Your task to perform on an android device: check out phone information Image 0: 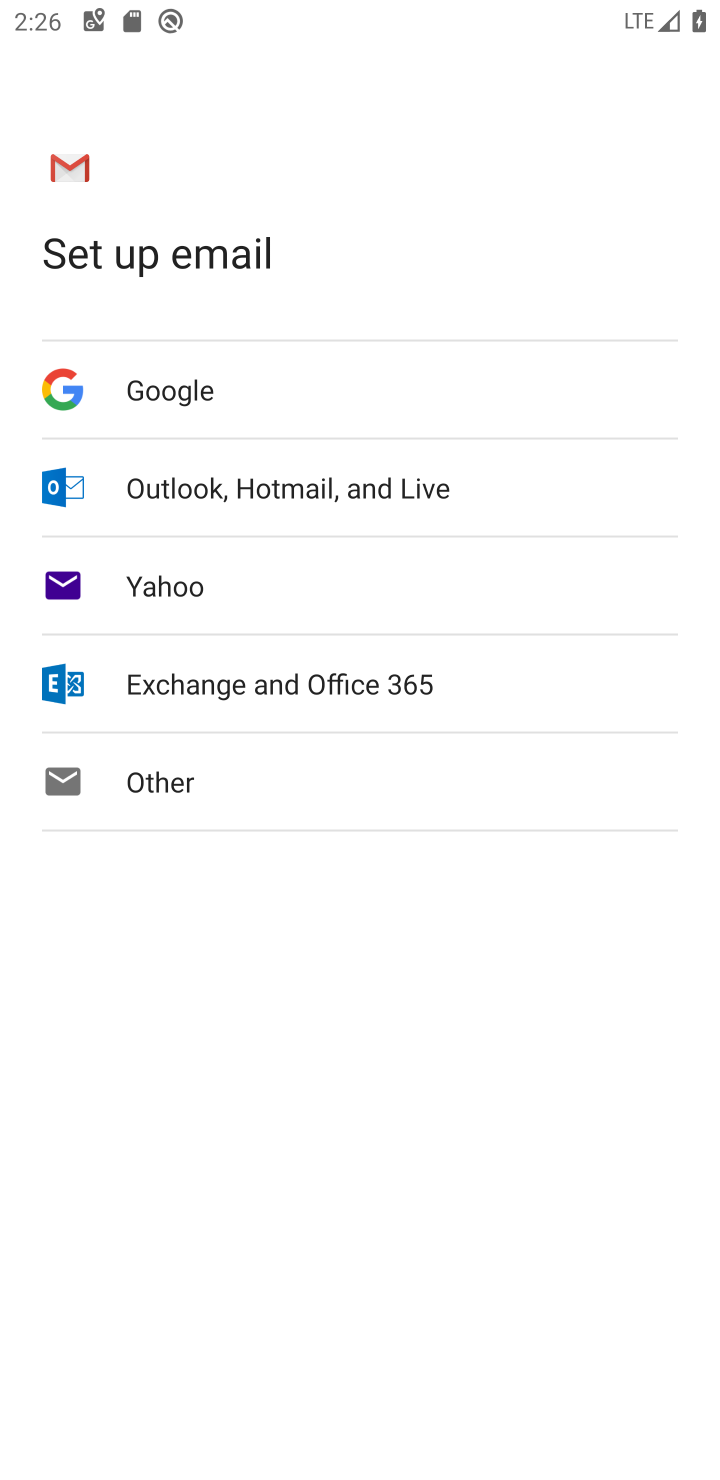
Step 0: press home button
Your task to perform on an android device: check out phone information Image 1: 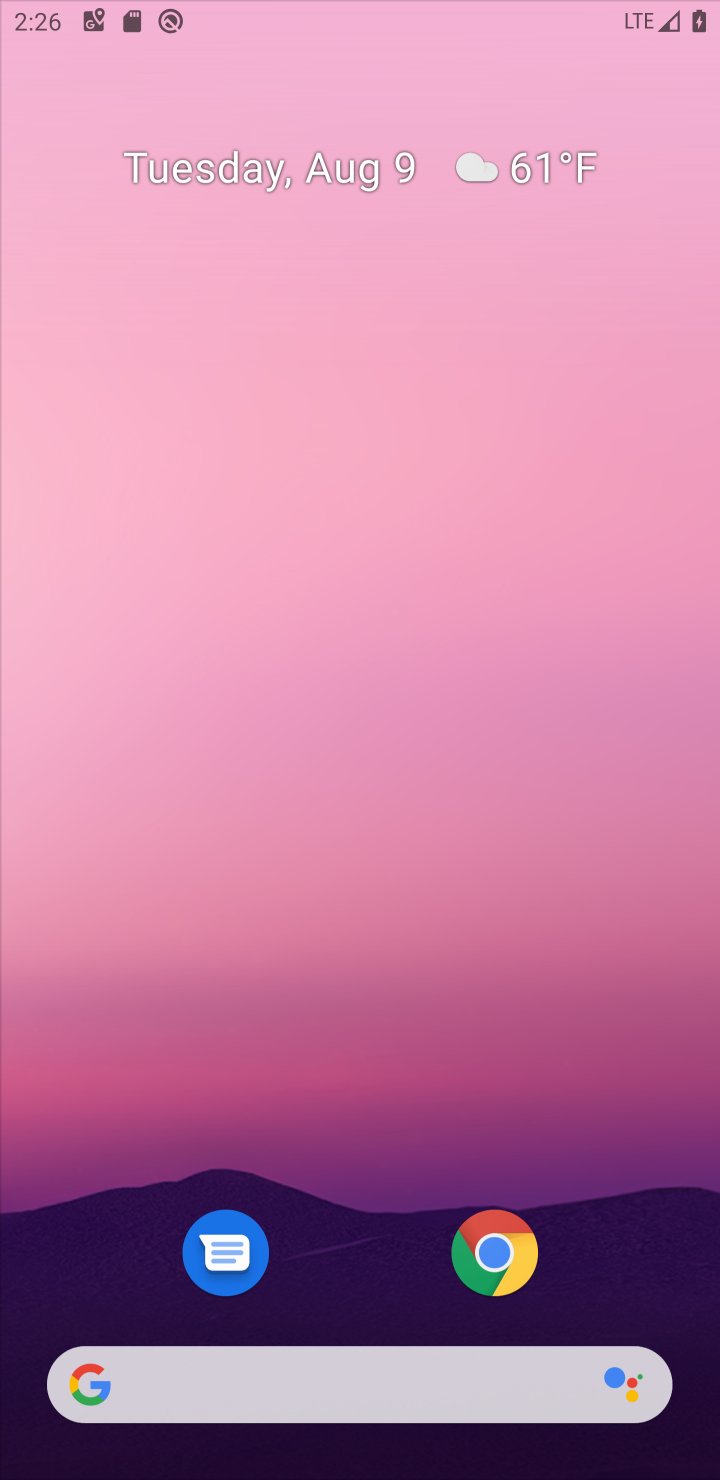
Step 1: drag from (510, 722) to (414, 71)
Your task to perform on an android device: check out phone information Image 2: 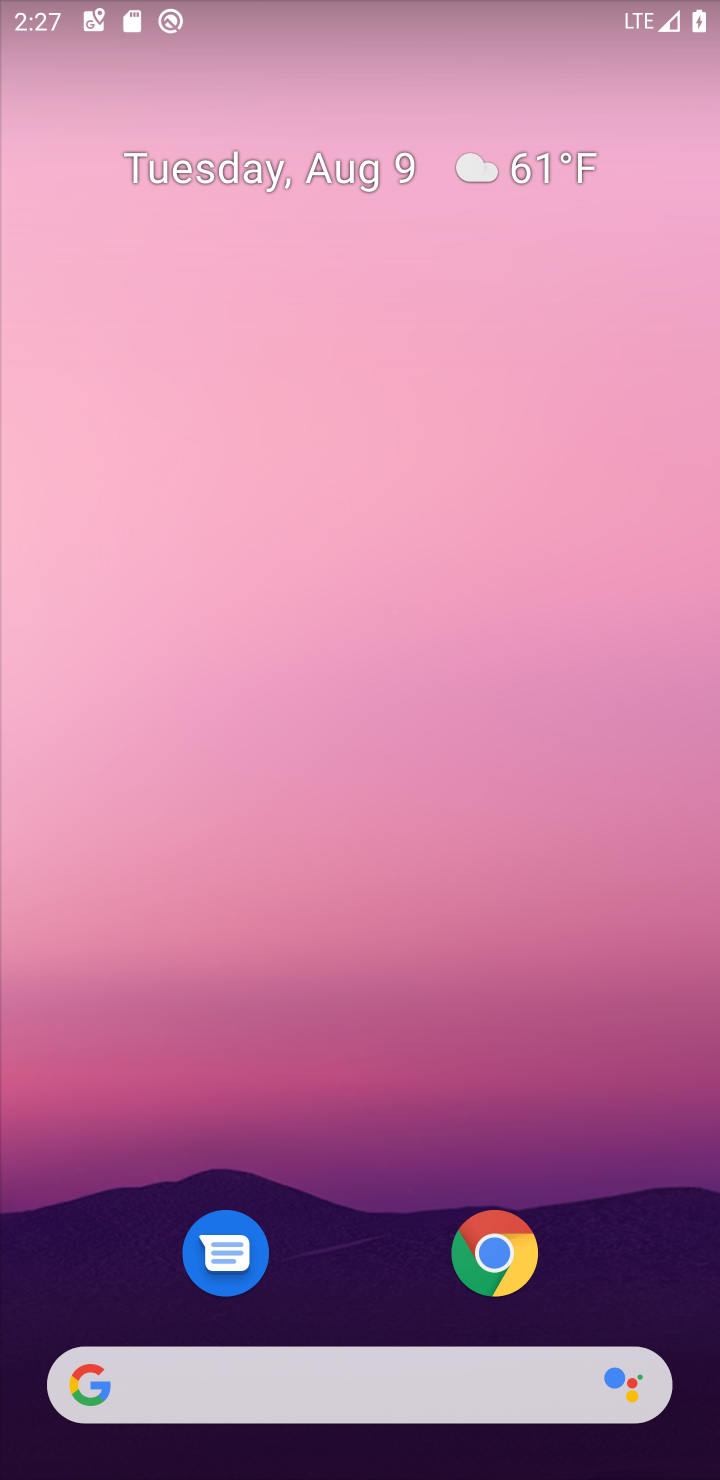
Step 2: drag from (511, 821) to (229, 88)
Your task to perform on an android device: check out phone information Image 3: 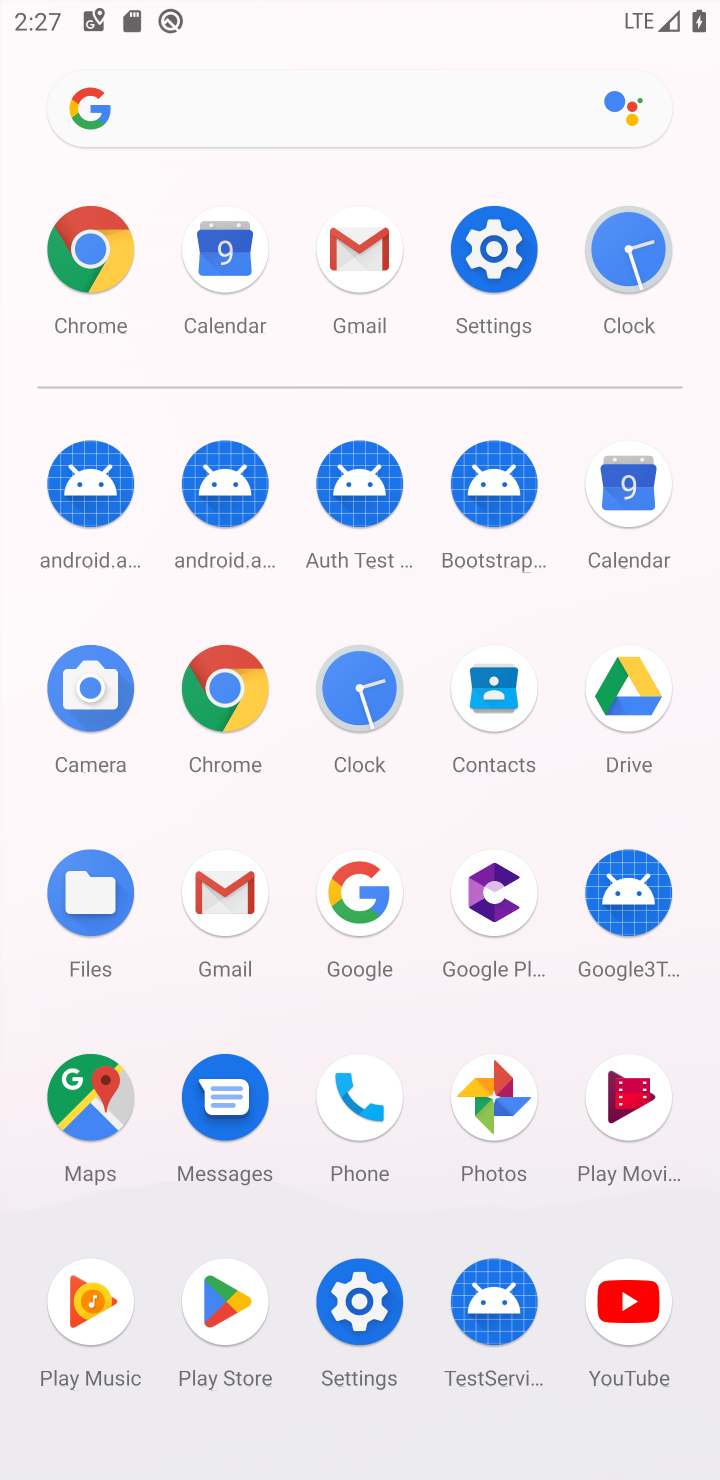
Step 3: click (333, 1321)
Your task to perform on an android device: check out phone information Image 4: 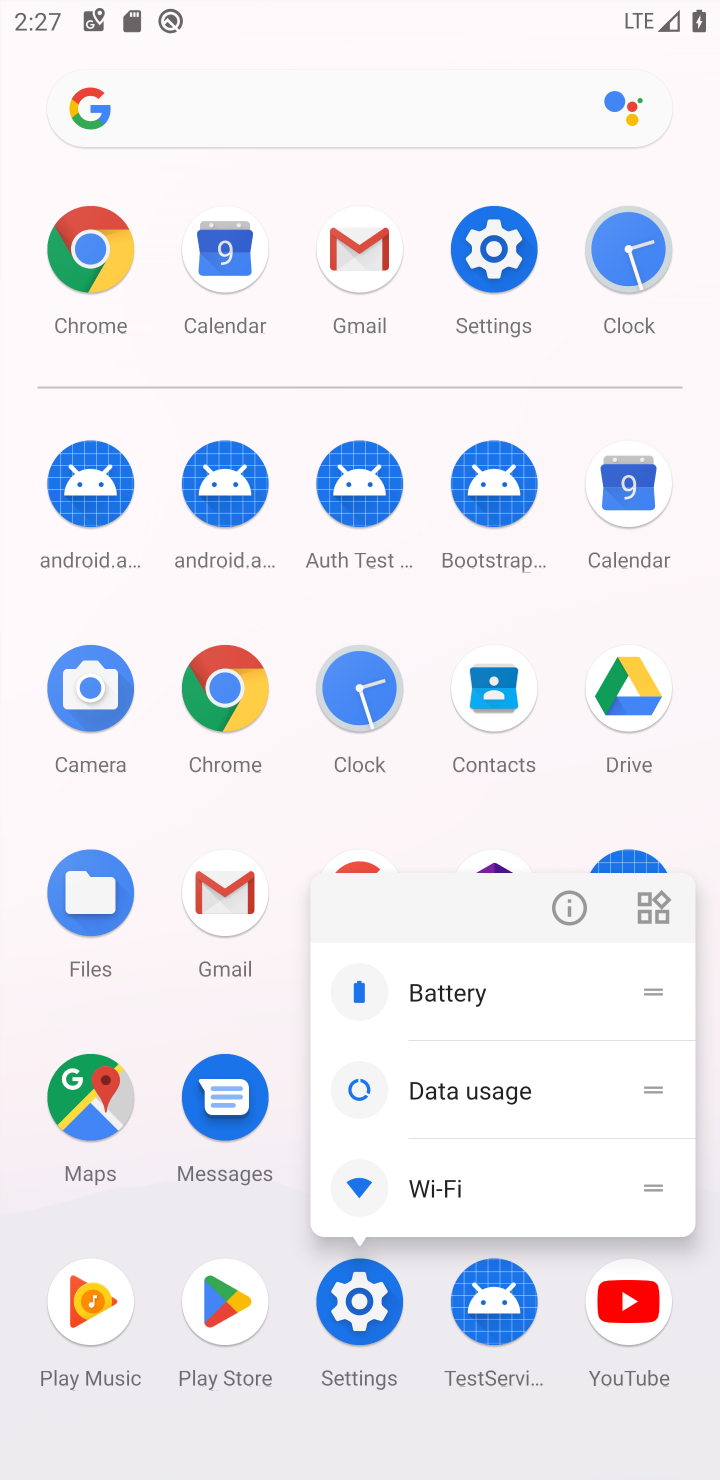
Step 4: click (333, 1321)
Your task to perform on an android device: check out phone information Image 5: 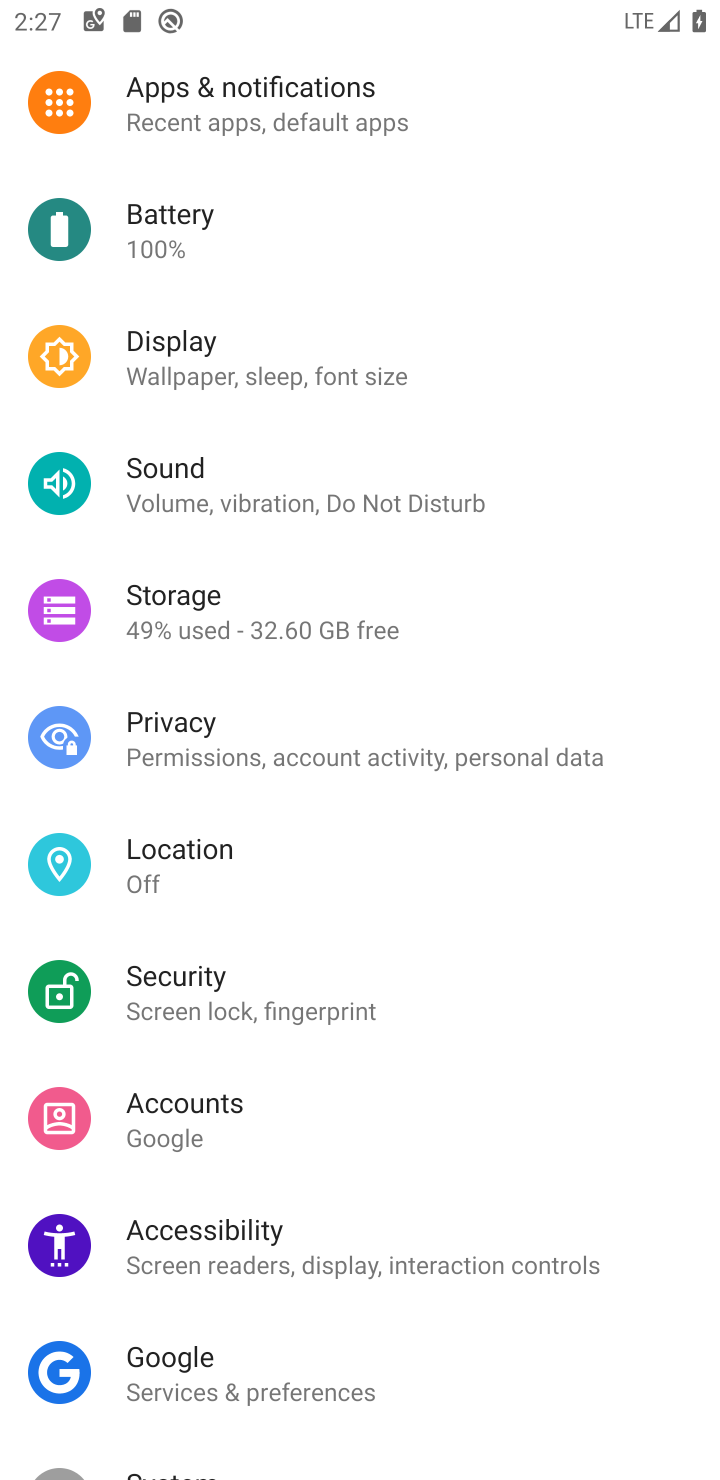
Step 5: drag from (361, 1142) to (263, 18)
Your task to perform on an android device: check out phone information Image 6: 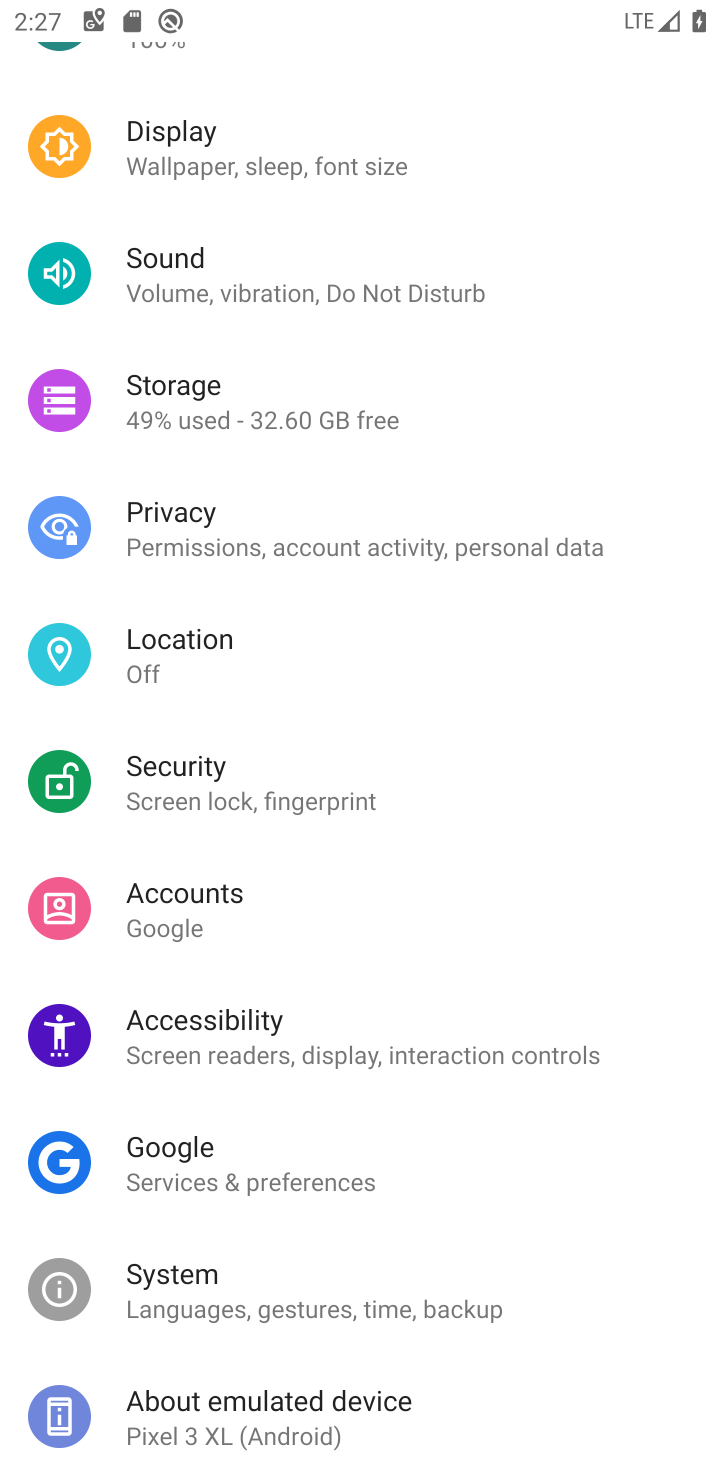
Step 6: click (210, 1418)
Your task to perform on an android device: check out phone information Image 7: 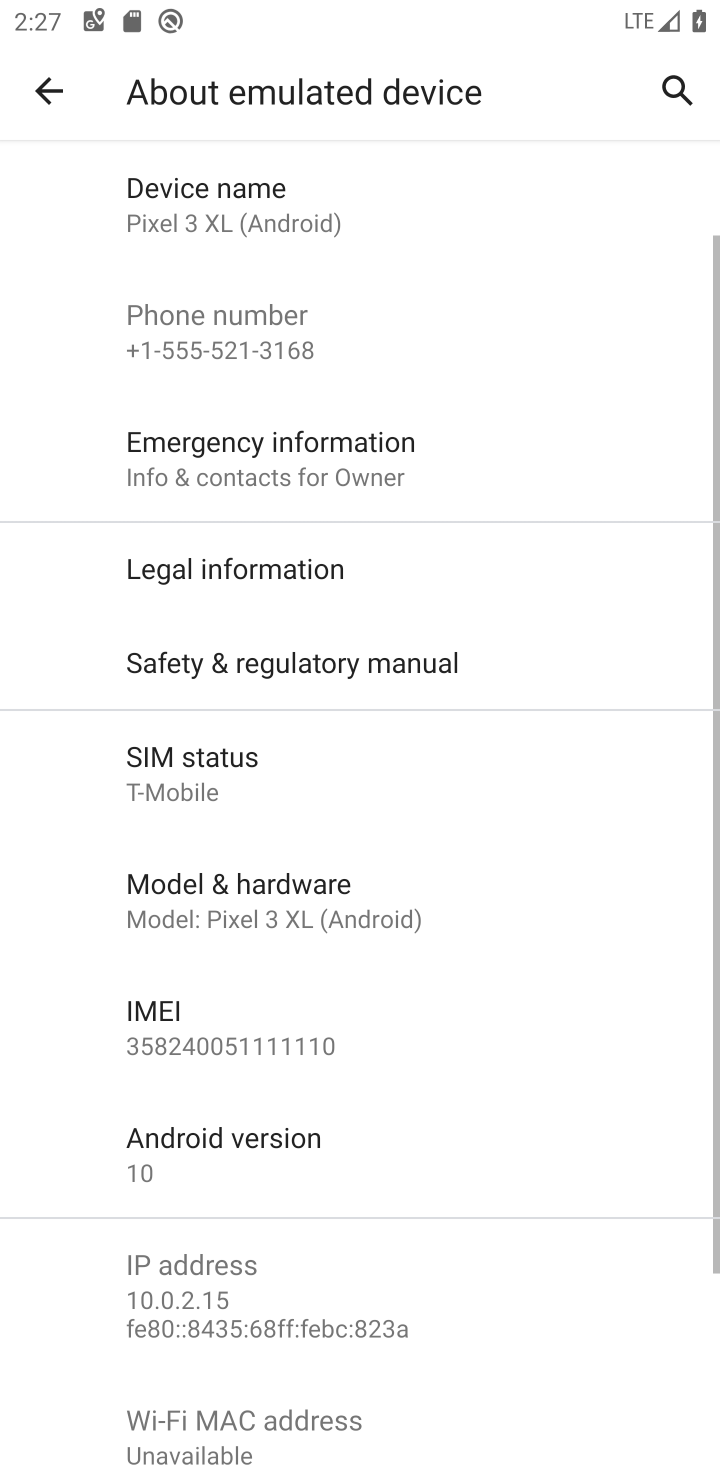
Step 7: task complete